Your task to perform on an android device: Go to network settings Image 0: 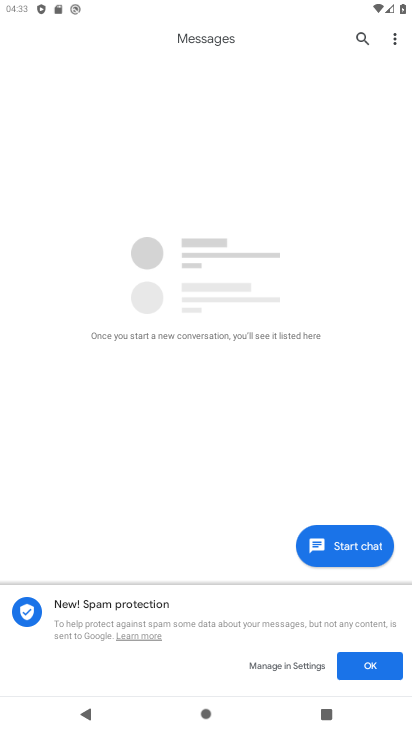
Step 0: press home button
Your task to perform on an android device: Go to network settings Image 1: 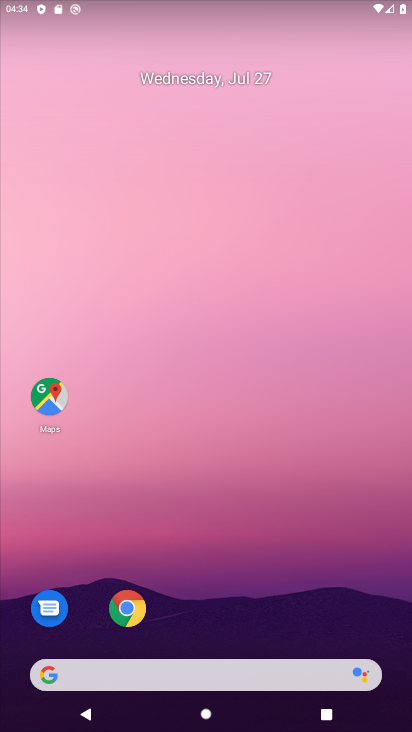
Step 1: drag from (231, 621) to (240, 101)
Your task to perform on an android device: Go to network settings Image 2: 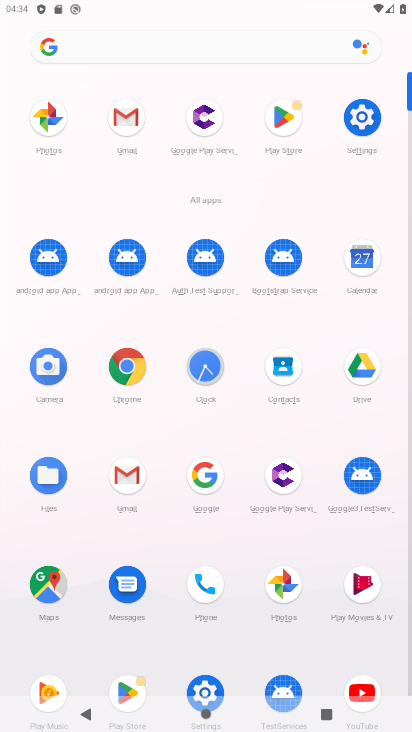
Step 2: click (364, 111)
Your task to perform on an android device: Go to network settings Image 3: 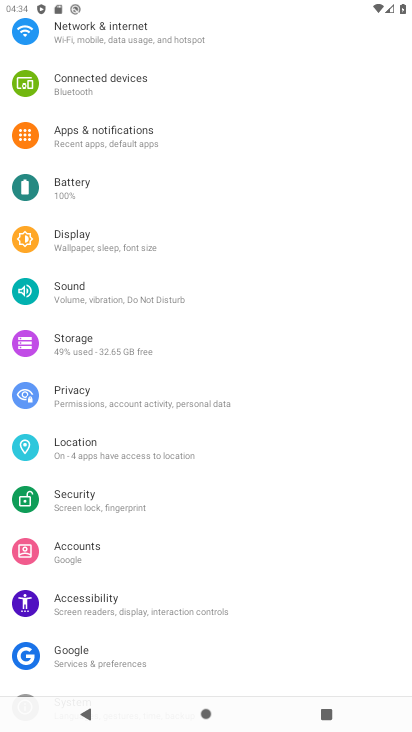
Step 3: click (108, 33)
Your task to perform on an android device: Go to network settings Image 4: 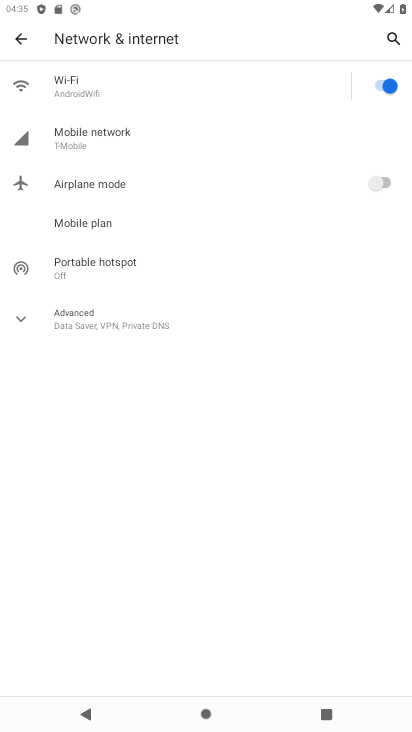
Step 4: task complete